Your task to perform on an android device: turn on bluetooth scan Image 0: 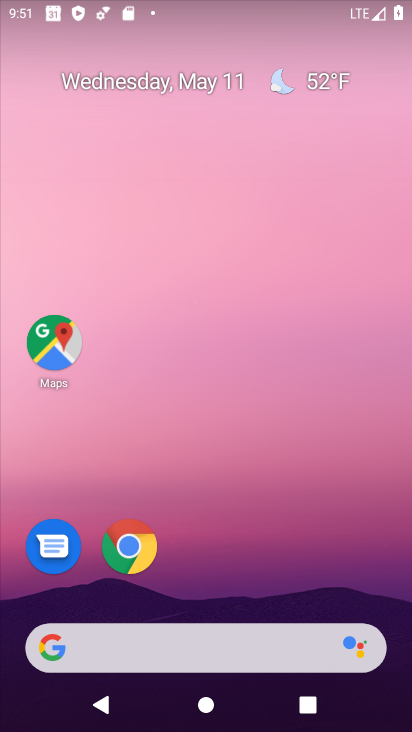
Step 0: drag from (207, 648) to (175, 174)
Your task to perform on an android device: turn on bluetooth scan Image 1: 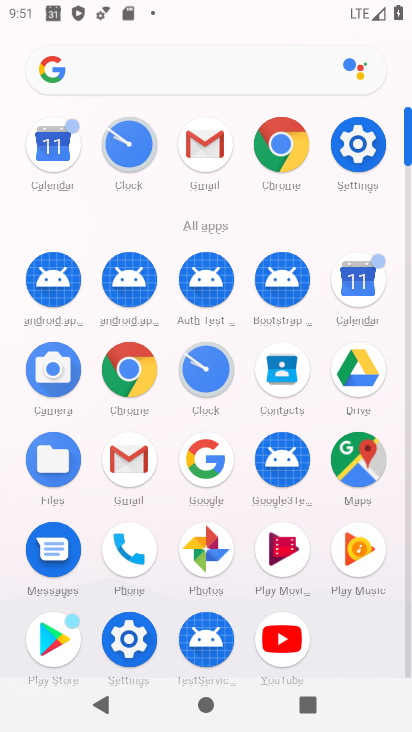
Step 1: click (121, 643)
Your task to perform on an android device: turn on bluetooth scan Image 2: 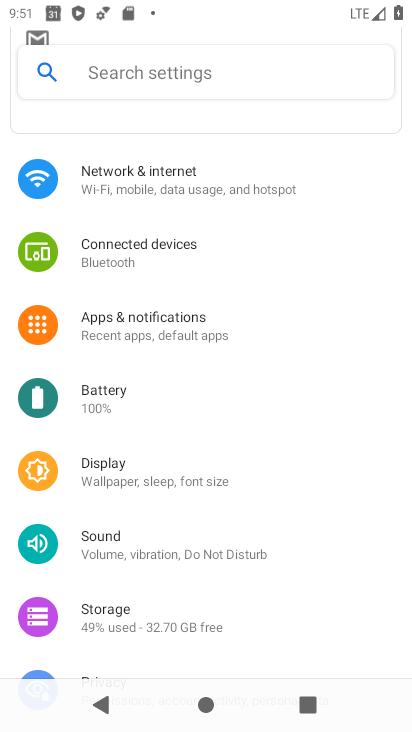
Step 2: drag from (25, 578) to (12, 117)
Your task to perform on an android device: turn on bluetooth scan Image 3: 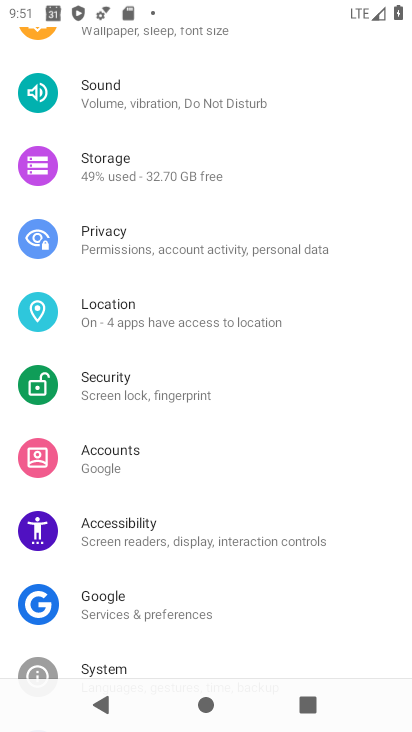
Step 3: click (132, 325)
Your task to perform on an android device: turn on bluetooth scan Image 4: 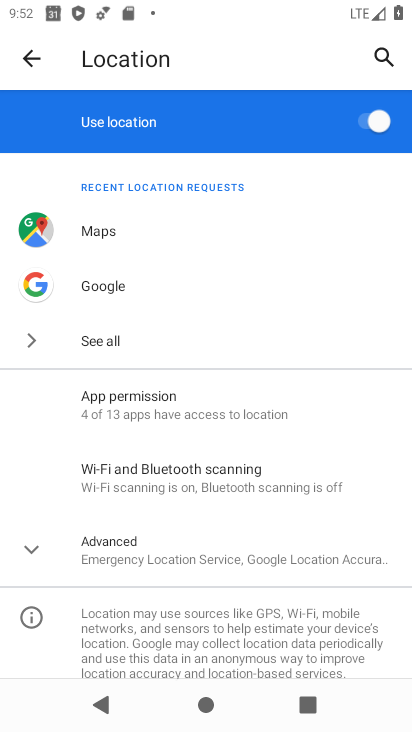
Step 4: click (164, 541)
Your task to perform on an android device: turn on bluetooth scan Image 5: 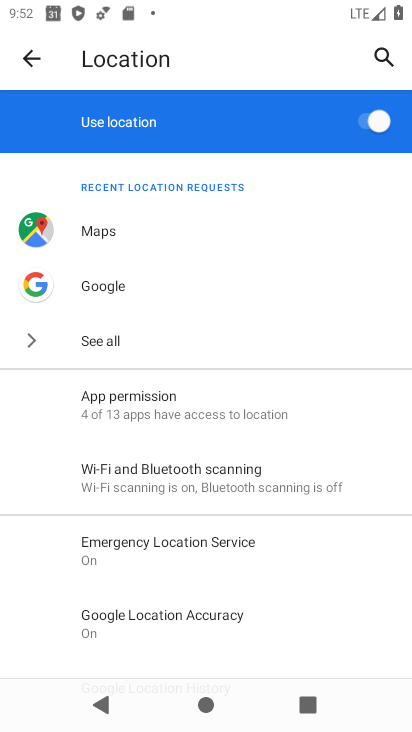
Step 5: drag from (161, 560) to (117, 107)
Your task to perform on an android device: turn on bluetooth scan Image 6: 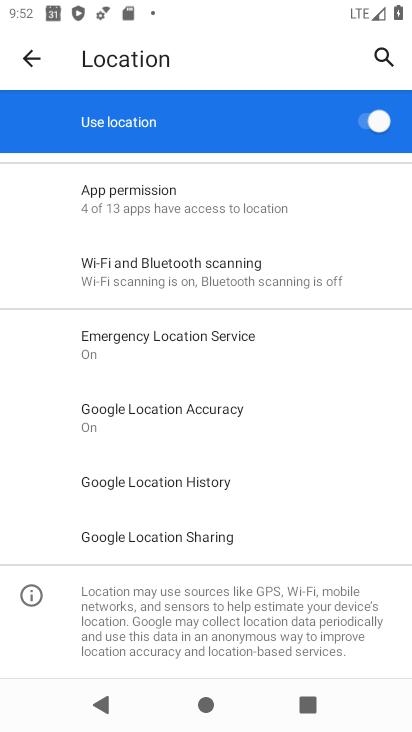
Step 6: click (202, 265)
Your task to perform on an android device: turn on bluetooth scan Image 7: 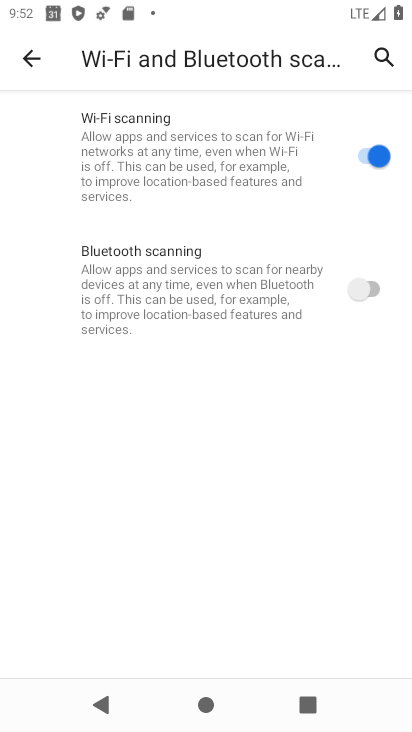
Step 7: click (364, 281)
Your task to perform on an android device: turn on bluetooth scan Image 8: 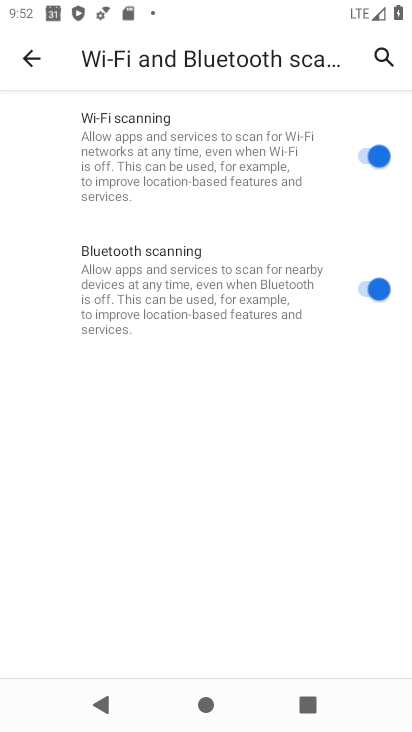
Step 8: task complete